Your task to perform on an android device: open device folders in google photos Image 0: 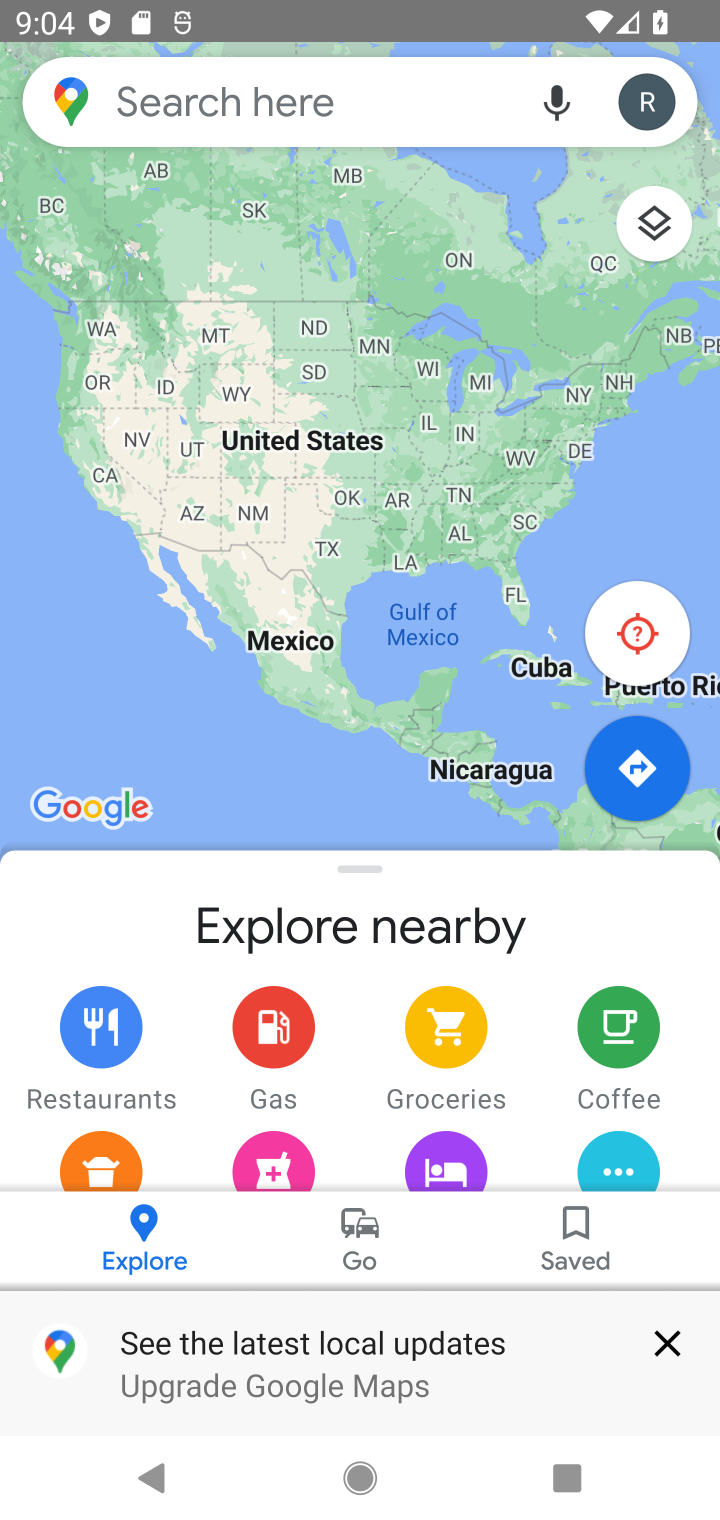
Step 0: press home button
Your task to perform on an android device: open device folders in google photos Image 1: 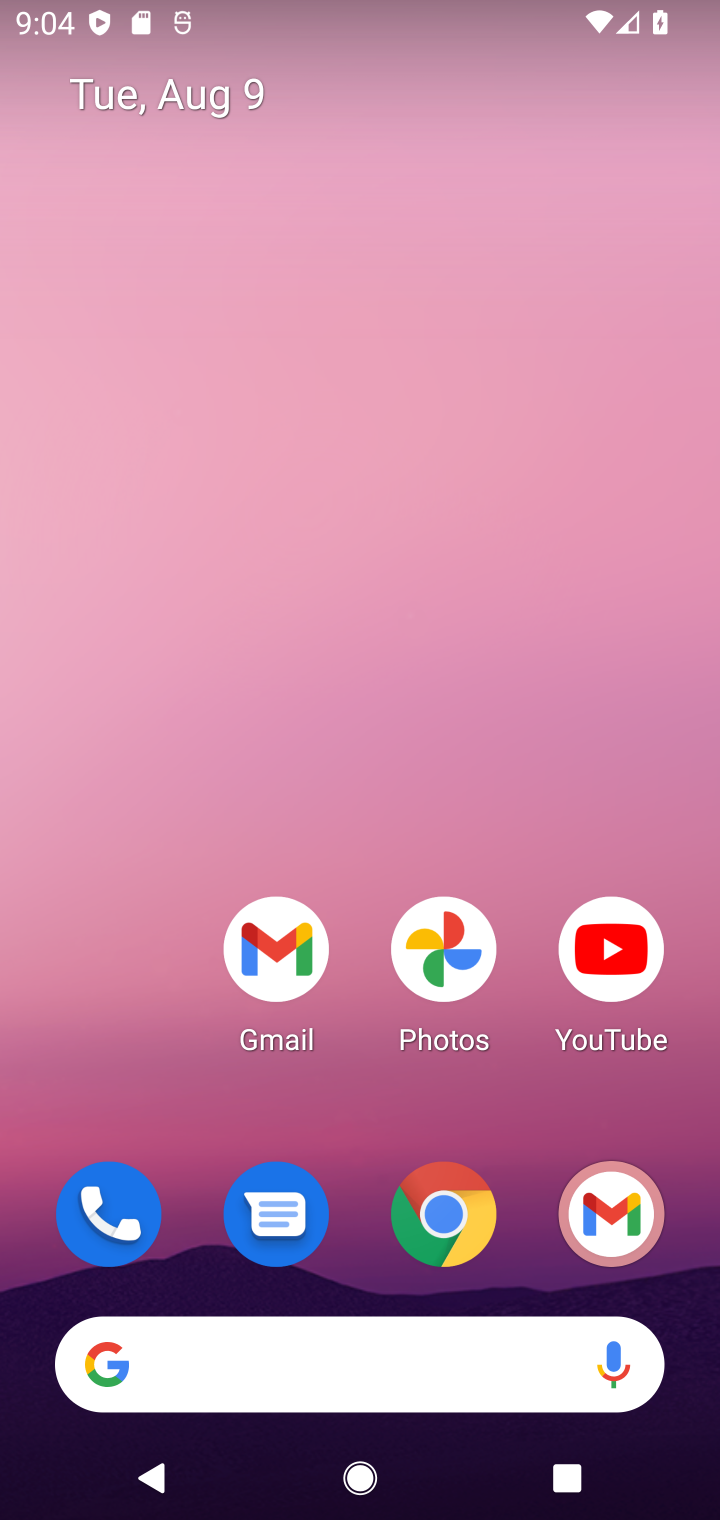
Step 1: drag from (96, 1478) to (260, 263)
Your task to perform on an android device: open device folders in google photos Image 2: 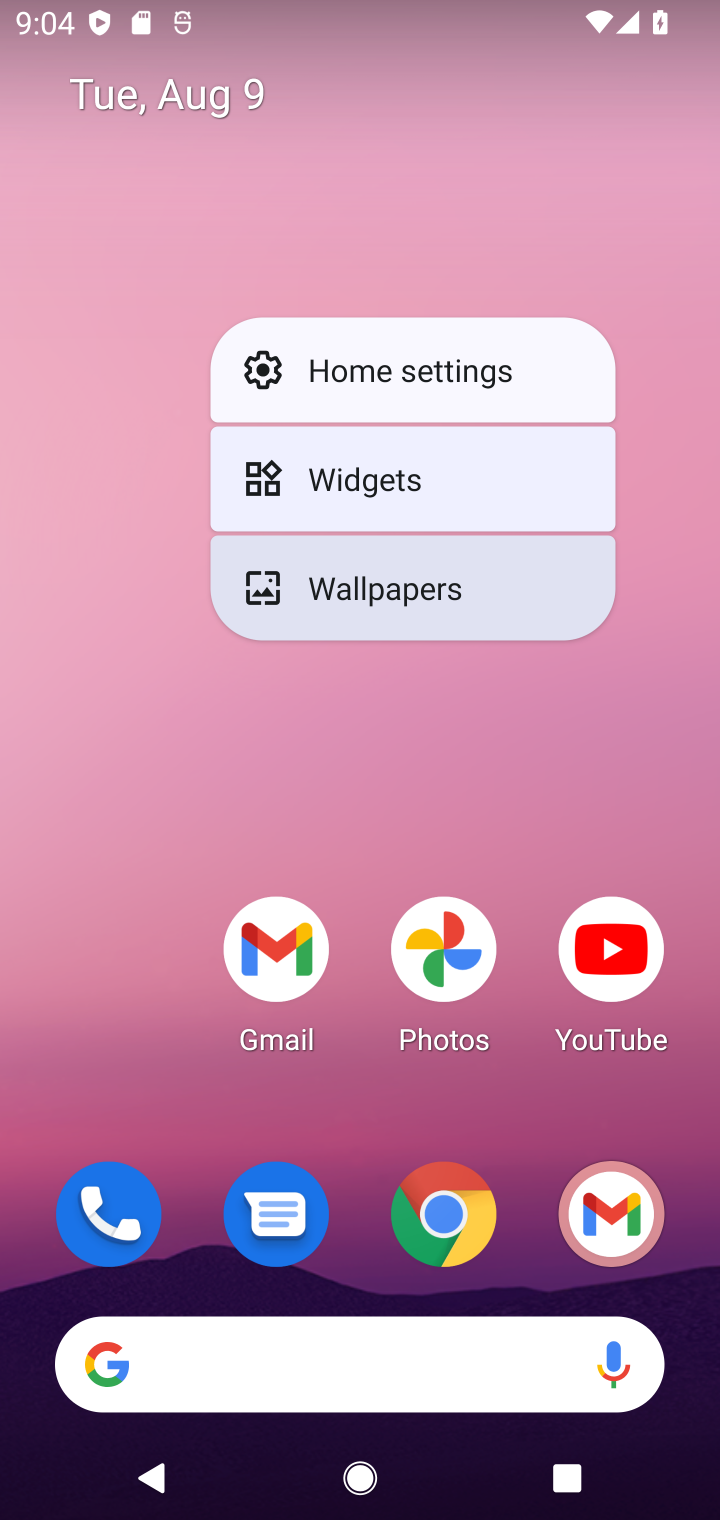
Step 2: click (431, 967)
Your task to perform on an android device: open device folders in google photos Image 3: 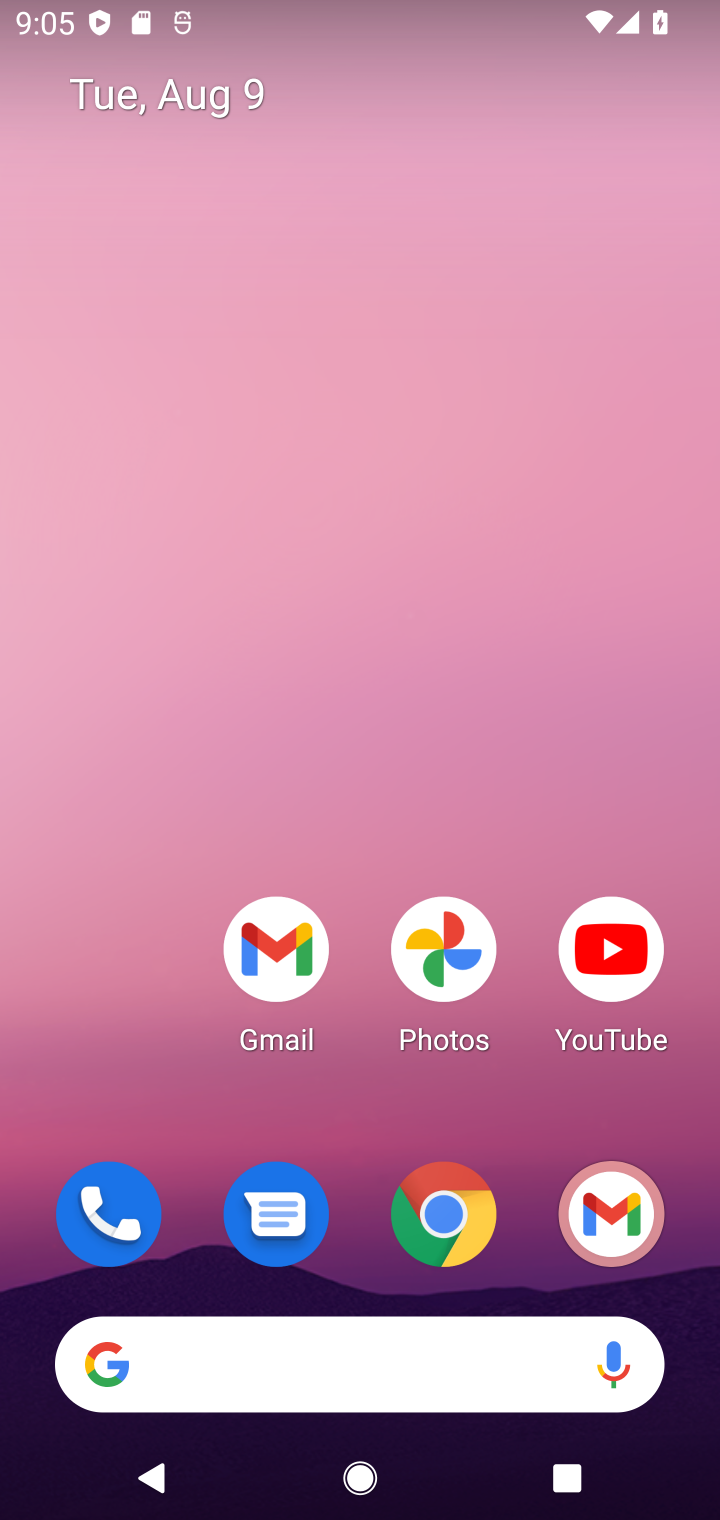
Step 3: click (431, 967)
Your task to perform on an android device: open device folders in google photos Image 4: 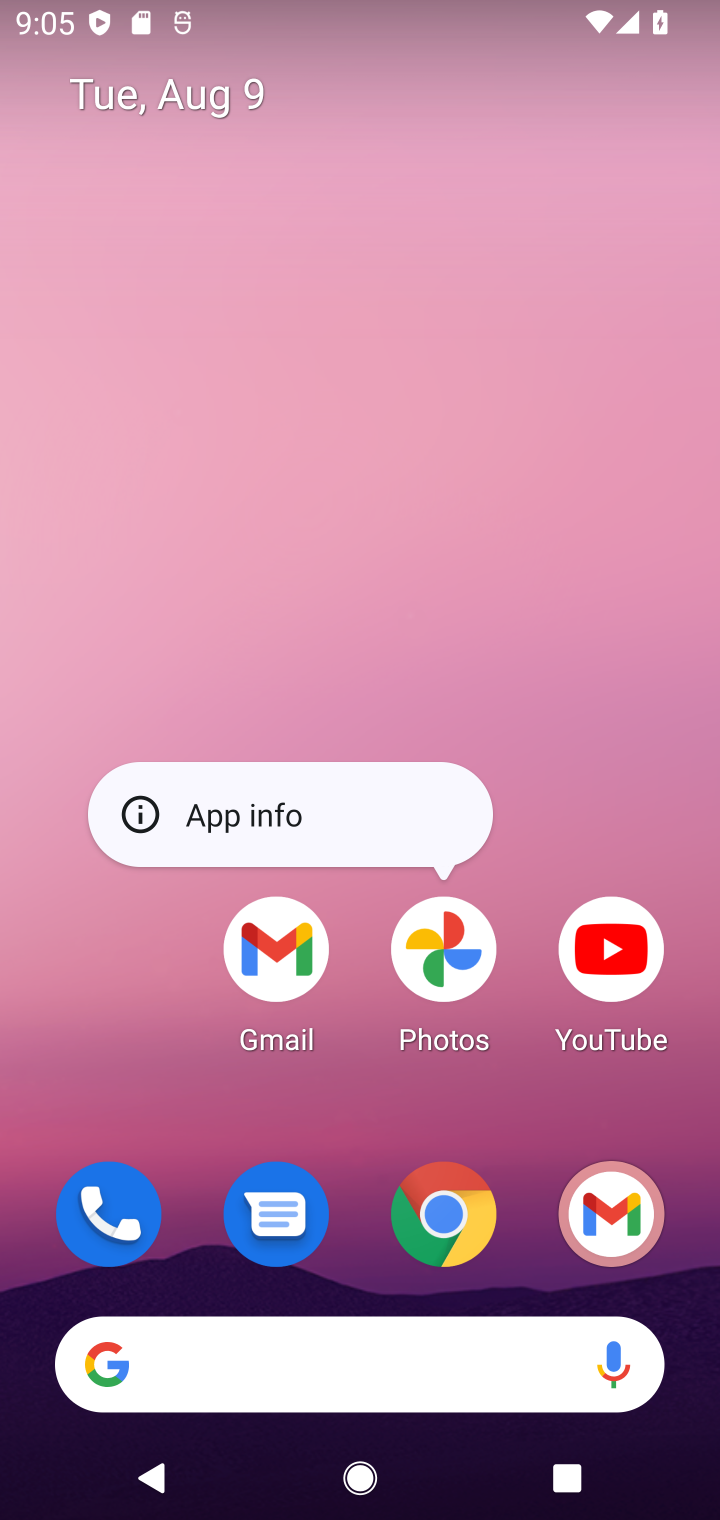
Step 4: click (431, 967)
Your task to perform on an android device: open device folders in google photos Image 5: 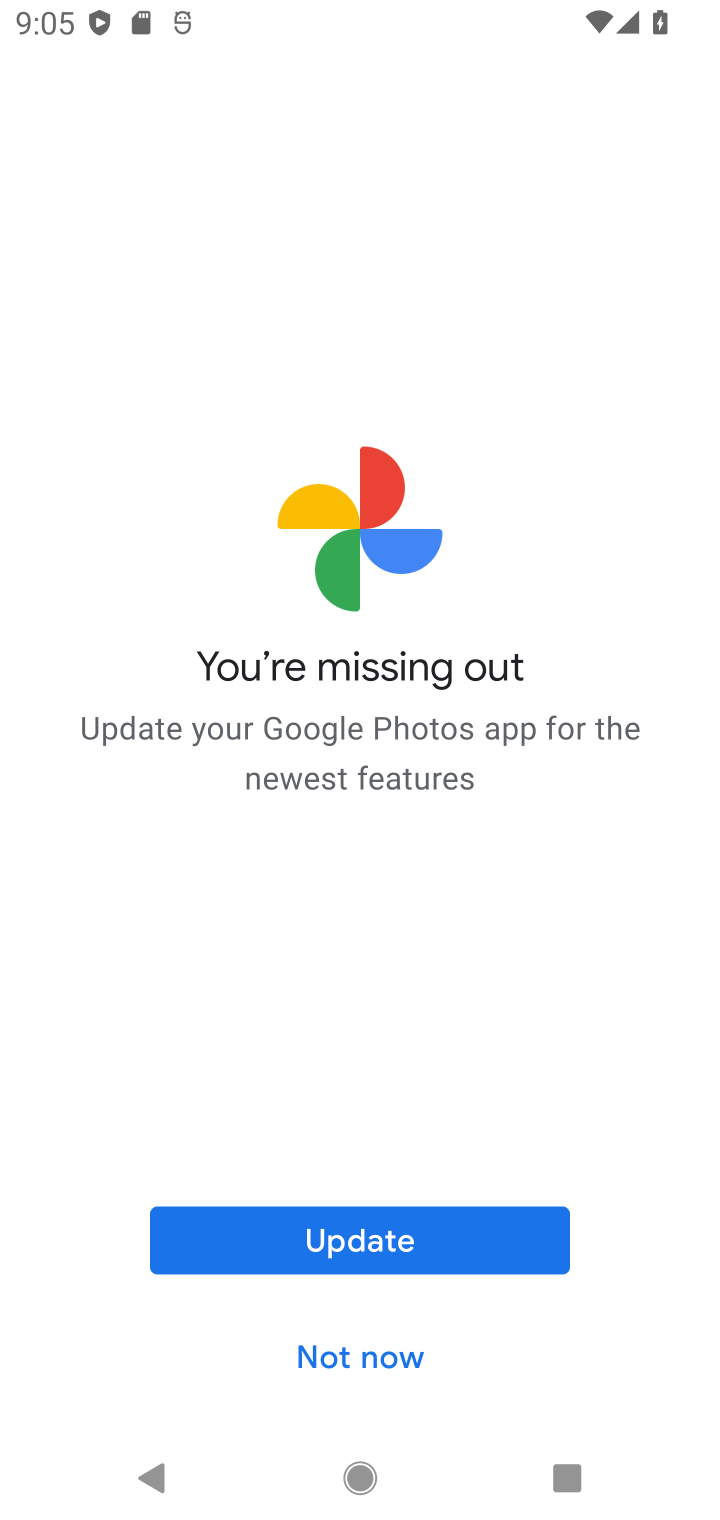
Step 5: click (352, 1369)
Your task to perform on an android device: open device folders in google photos Image 6: 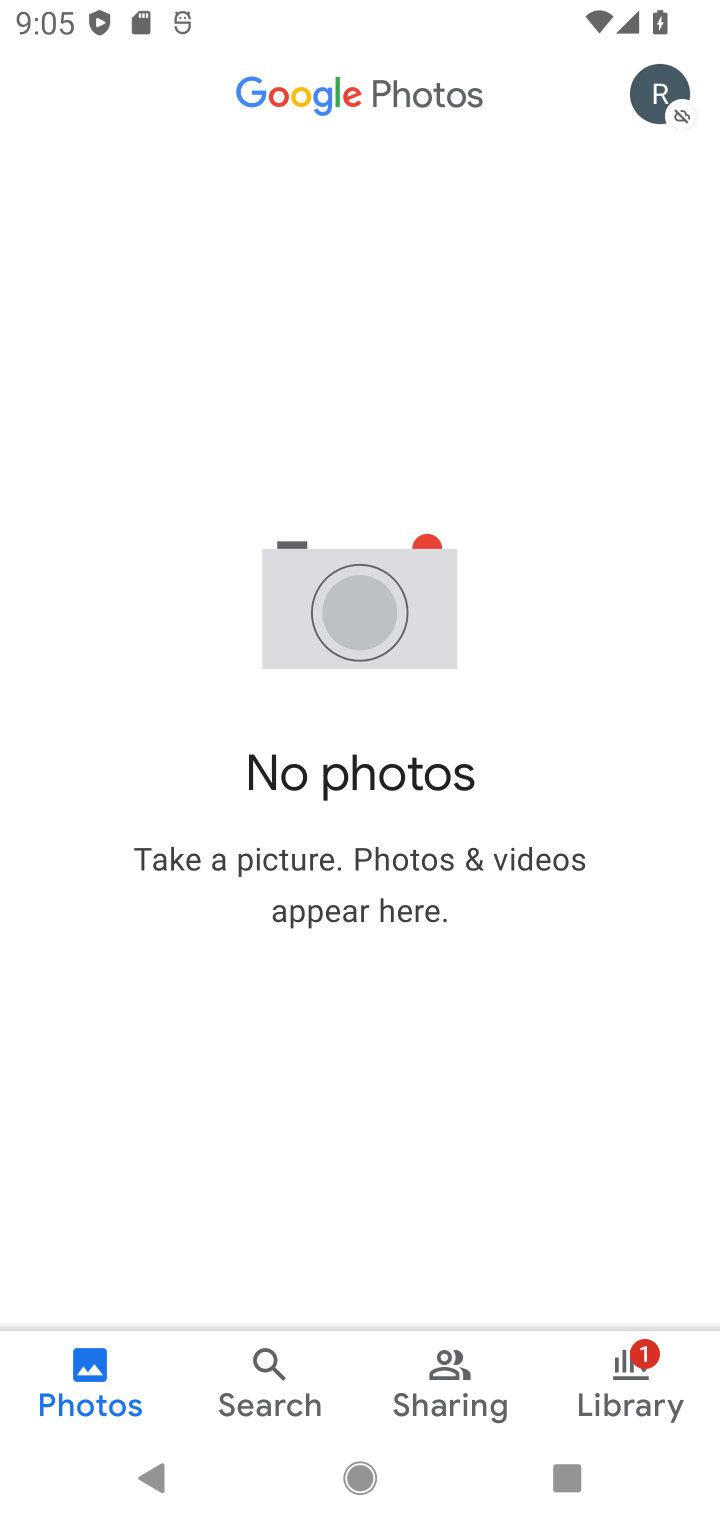
Step 6: task complete